Your task to perform on an android device: Go to location settings Image 0: 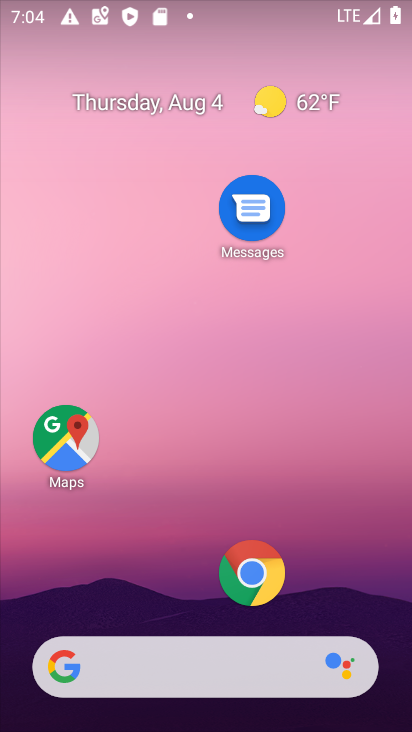
Step 0: press home button
Your task to perform on an android device: Go to location settings Image 1: 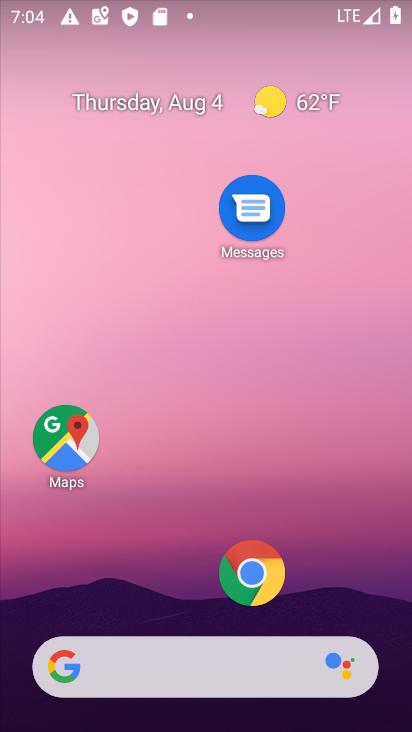
Step 1: drag from (188, 531) to (261, 109)
Your task to perform on an android device: Go to location settings Image 2: 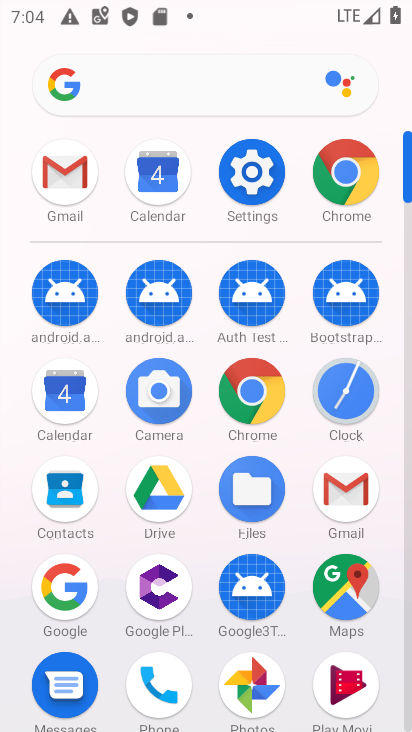
Step 2: click (248, 174)
Your task to perform on an android device: Go to location settings Image 3: 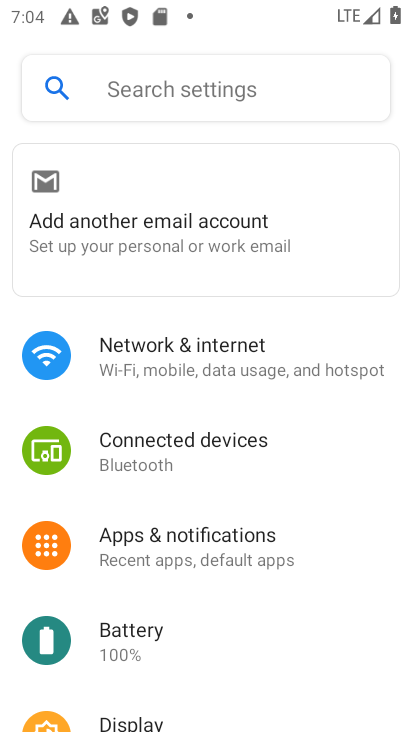
Step 3: drag from (330, 620) to (301, 120)
Your task to perform on an android device: Go to location settings Image 4: 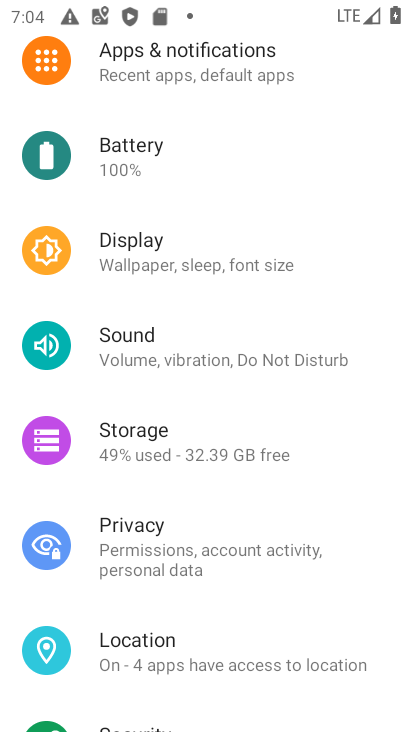
Step 4: click (148, 661)
Your task to perform on an android device: Go to location settings Image 5: 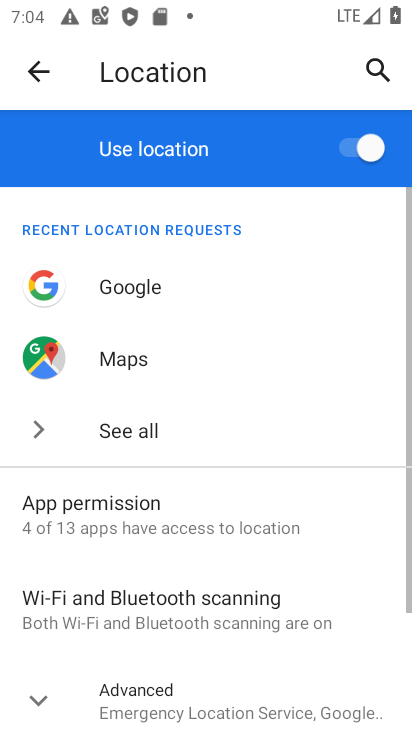
Step 5: task complete